Your task to perform on an android device: add a contact in the contacts app Image 0: 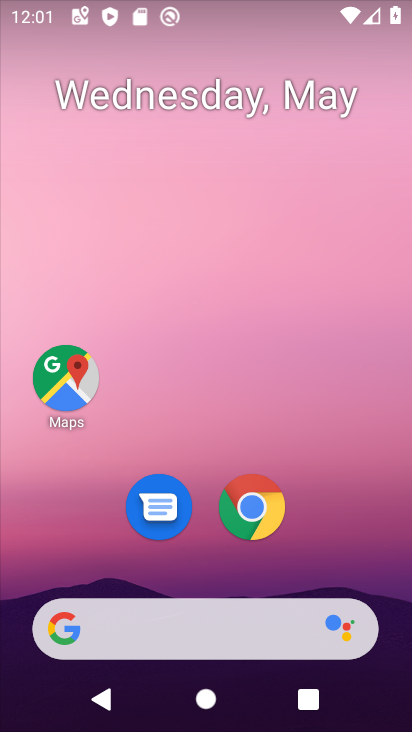
Step 0: drag from (235, 553) to (243, 207)
Your task to perform on an android device: add a contact in the contacts app Image 1: 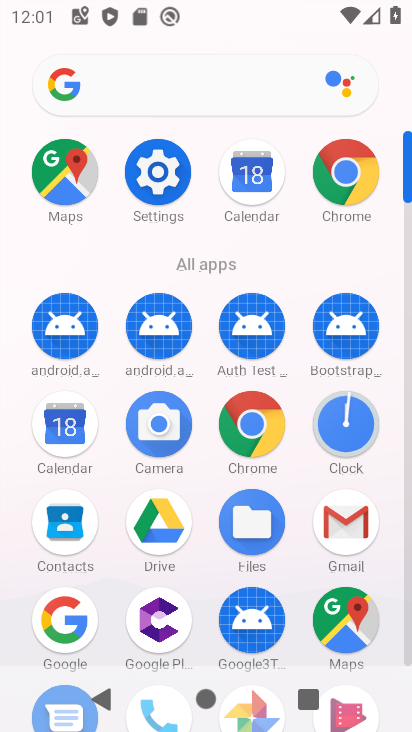
Step 1: drag from (284, 544) to (298, 155)
Your task to perform on an android device: add a contact in the contacts app Image 2: 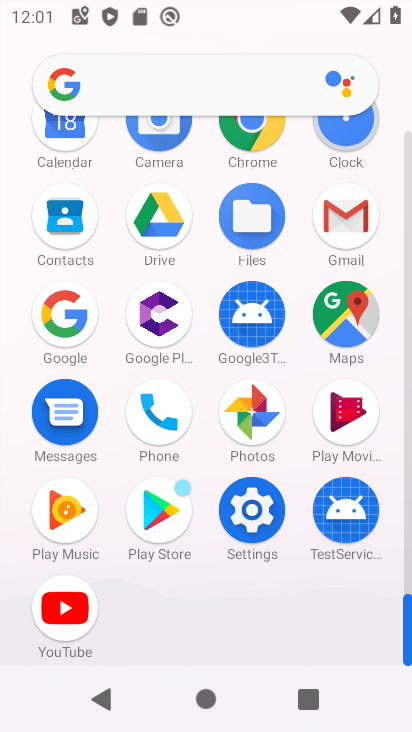
Step 2: click (154, 421)
Your task to perform on an android device: add a contact in the contacts app Image 3: 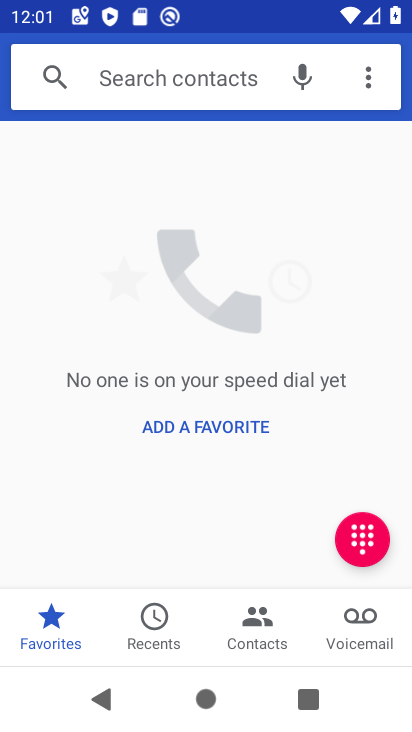
Step 3: click (198, 430)
Your task to perform on an android device: add a contact in the contacts app Image 4: 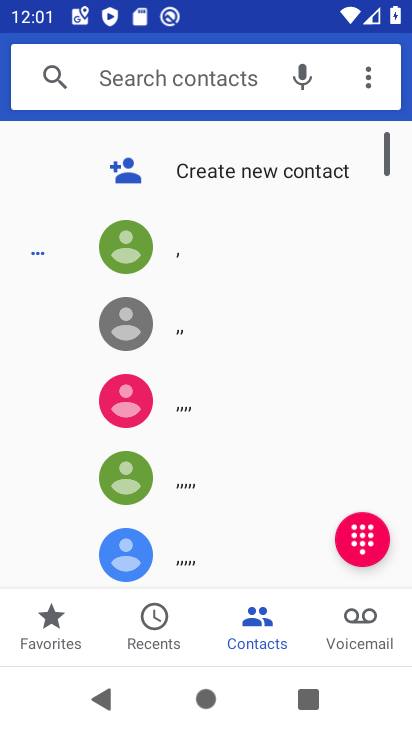
Step 4: click (214, 167)
Your task to perform on an android device: add a contact in the contacts app Image 5: 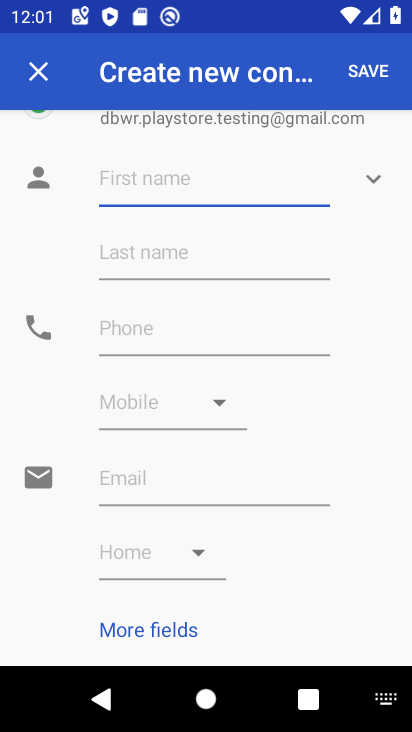
Step 5: type "jhjjjjjyyuyuyuffh"
Your task to perform on an android device: add a contact in the contacts app Image 6: 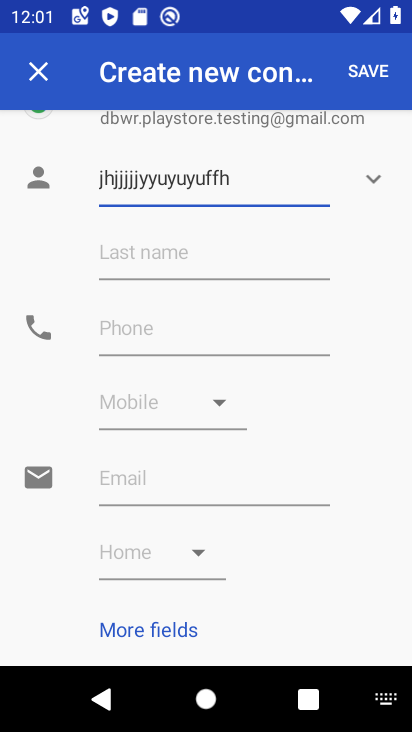
Step 6: click (207, 346)
Your task to perform on an android device: add a contact in the contacts app Image 7: 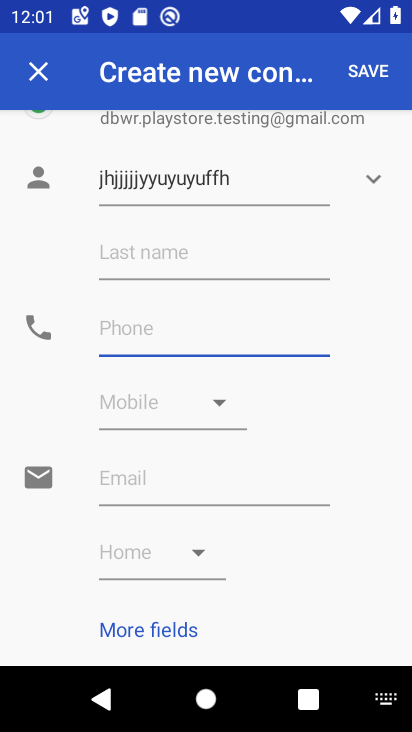
Step 7: type "987654332"
Your task to perform on an android device: add a contact in the contacts app Image 8: 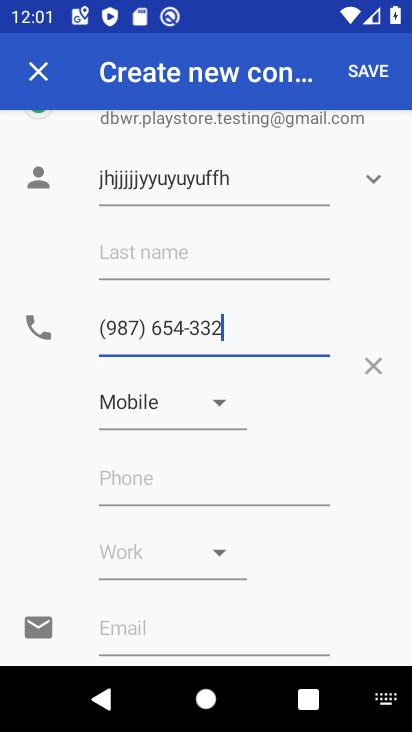
Step 8: click (345, 67)
Your task to perform on an android device: add a contact in the contacts app Image 9: 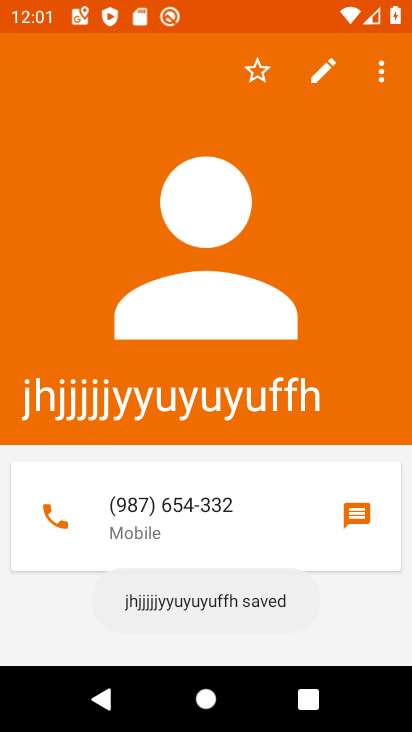
Step 9: task complete